Your task to perform on an android device: open app "Mercado Libre" (install if not already installed) Image 0: 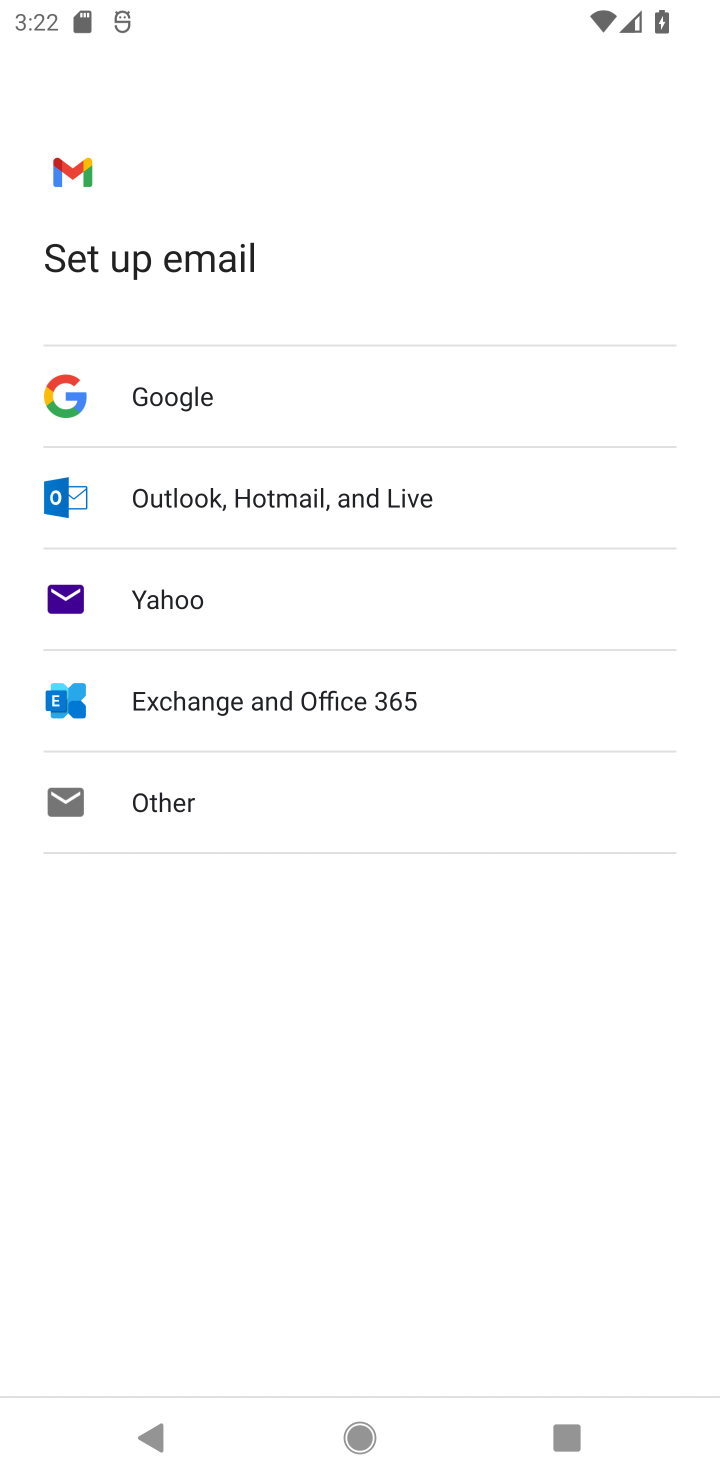
Step 0: press home button
Your task to perform on an android device: open app "Mercado Libre" (install if not already installed) Image 1: 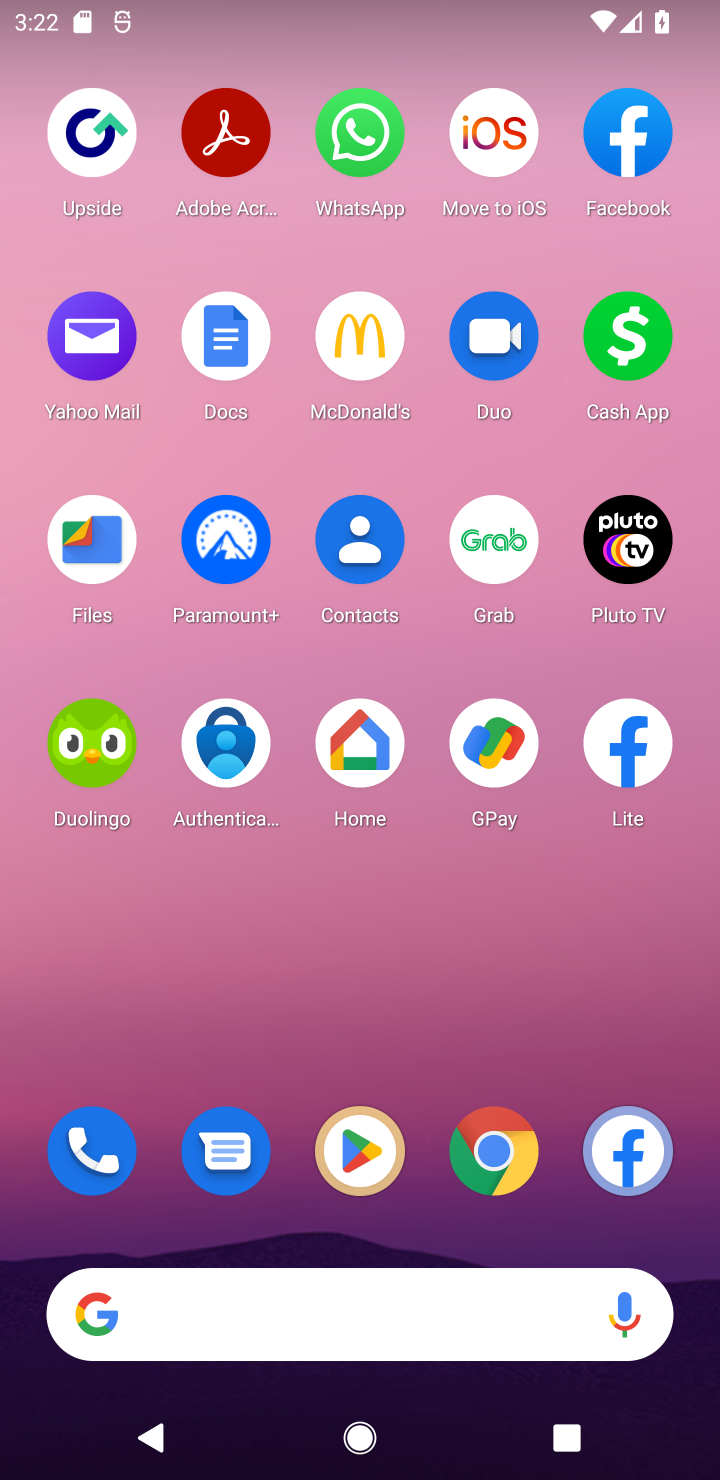
Step 1: click (370, 1199)
Your task to perform on an android device: open app "Mercado Libre" (install if not already installed) Image 2: 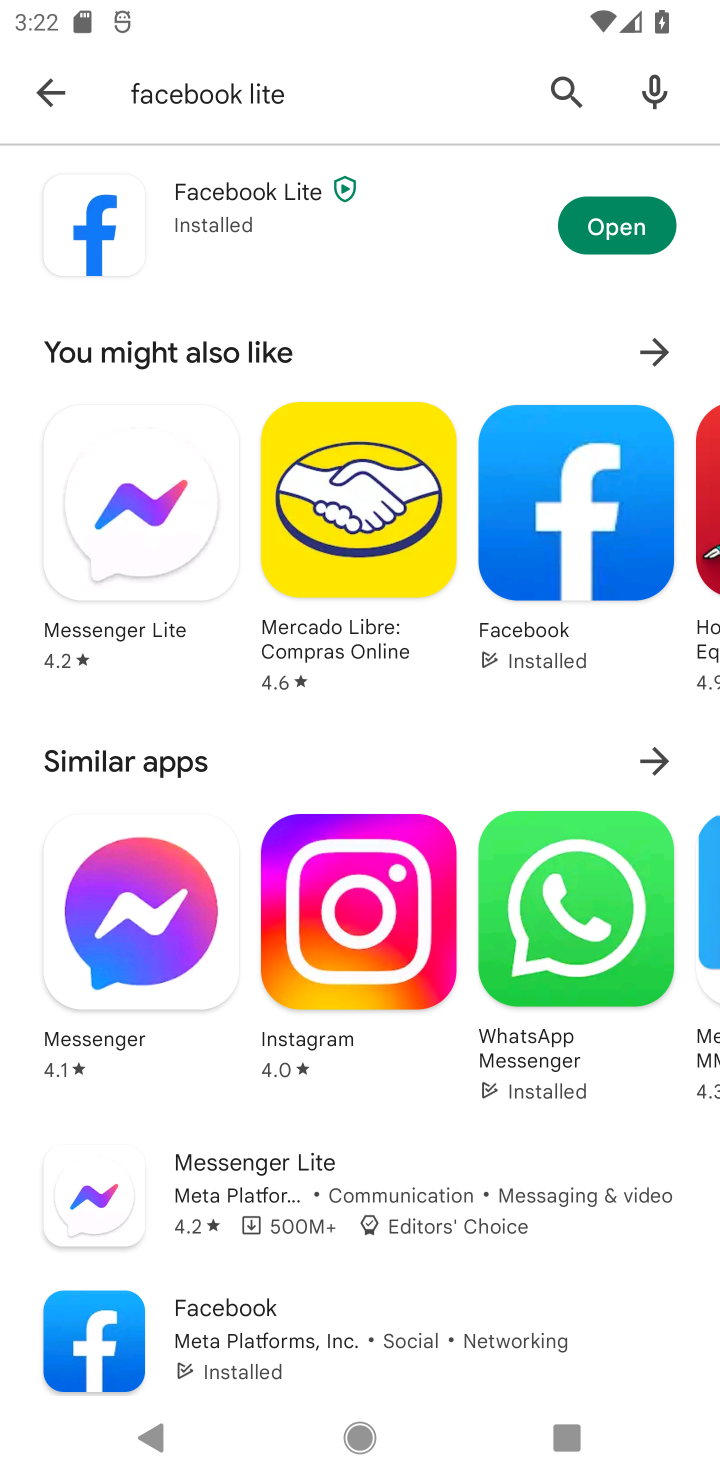
Step 2: click (543, 120)
Your task to perform on an android device: open app "Mercado Libre" (install if not already installed) Image 3: 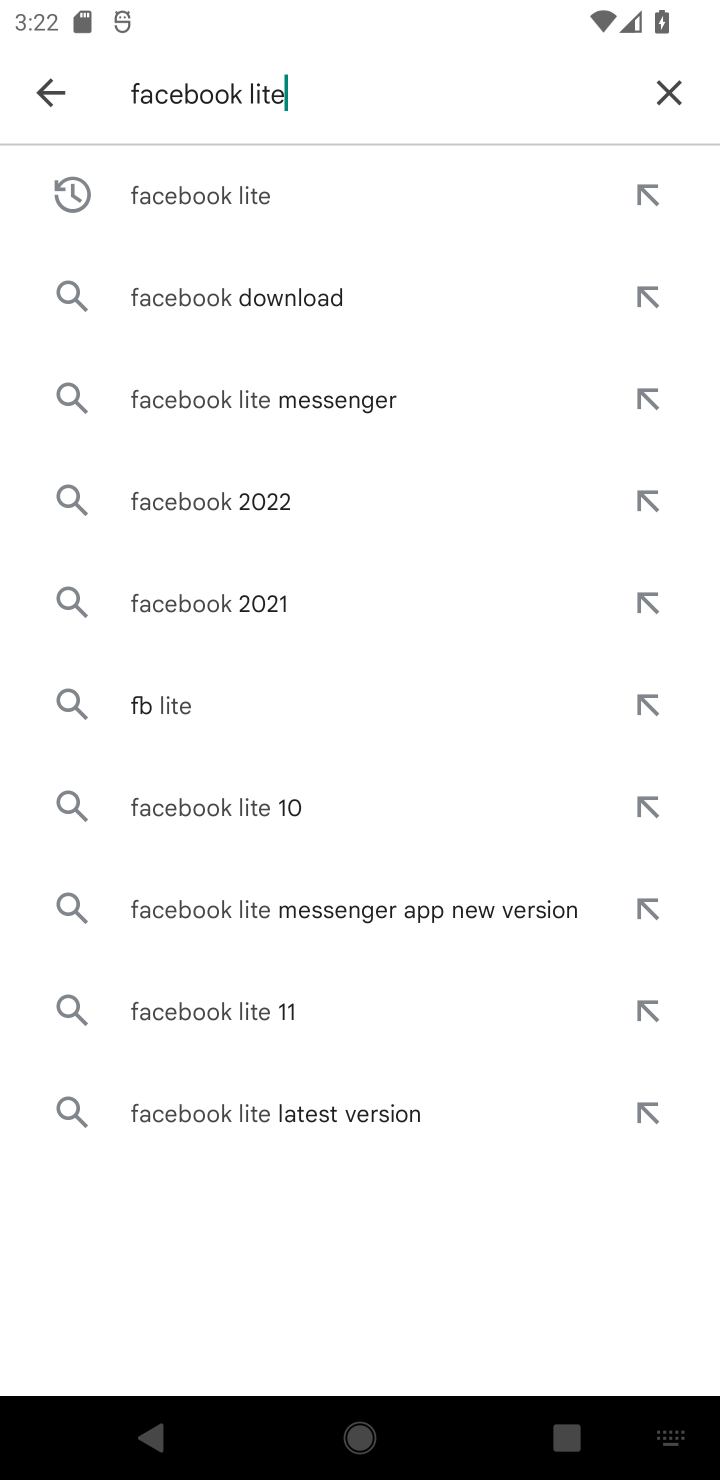
Step 3: click (647, 93)
Your task to perform on an android device: open app "Mercado Libre" (install if not already installed) Image 4: 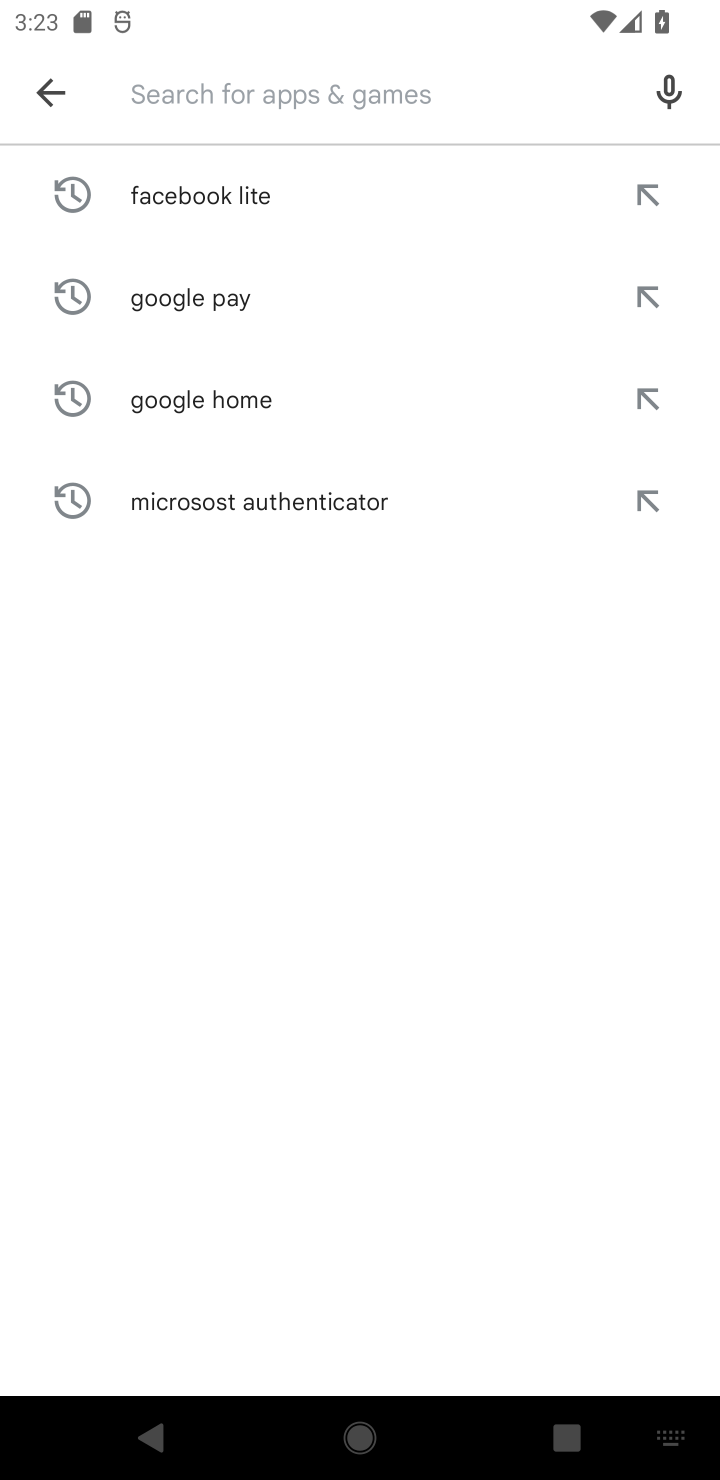
Step 4: type "mercado"
Your task to perform on an android device: open app "Mercado Libre" (install if not already installed) Image 5: 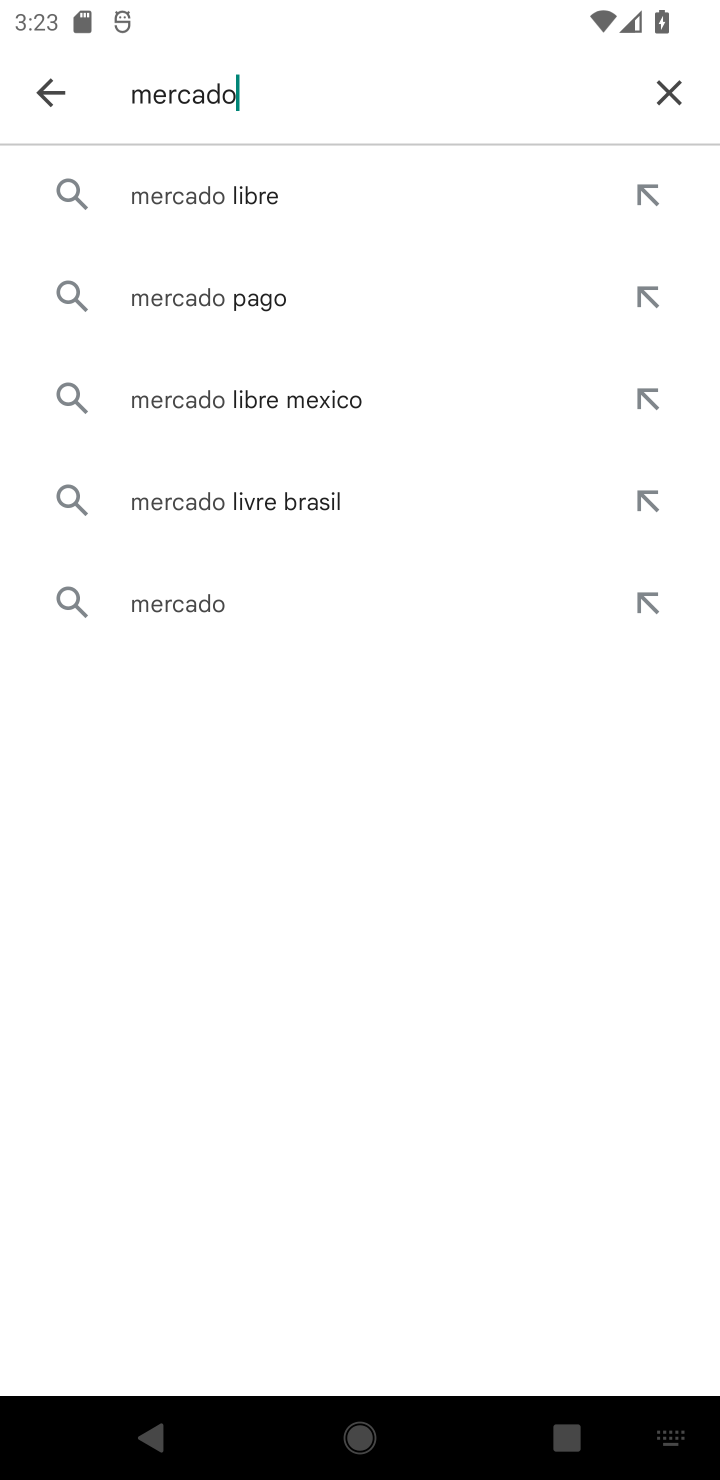
Step 5: click (317, 209)
Your task to perform on an android device: open app "Mercado Libre" (install if not already installed) Image 6: 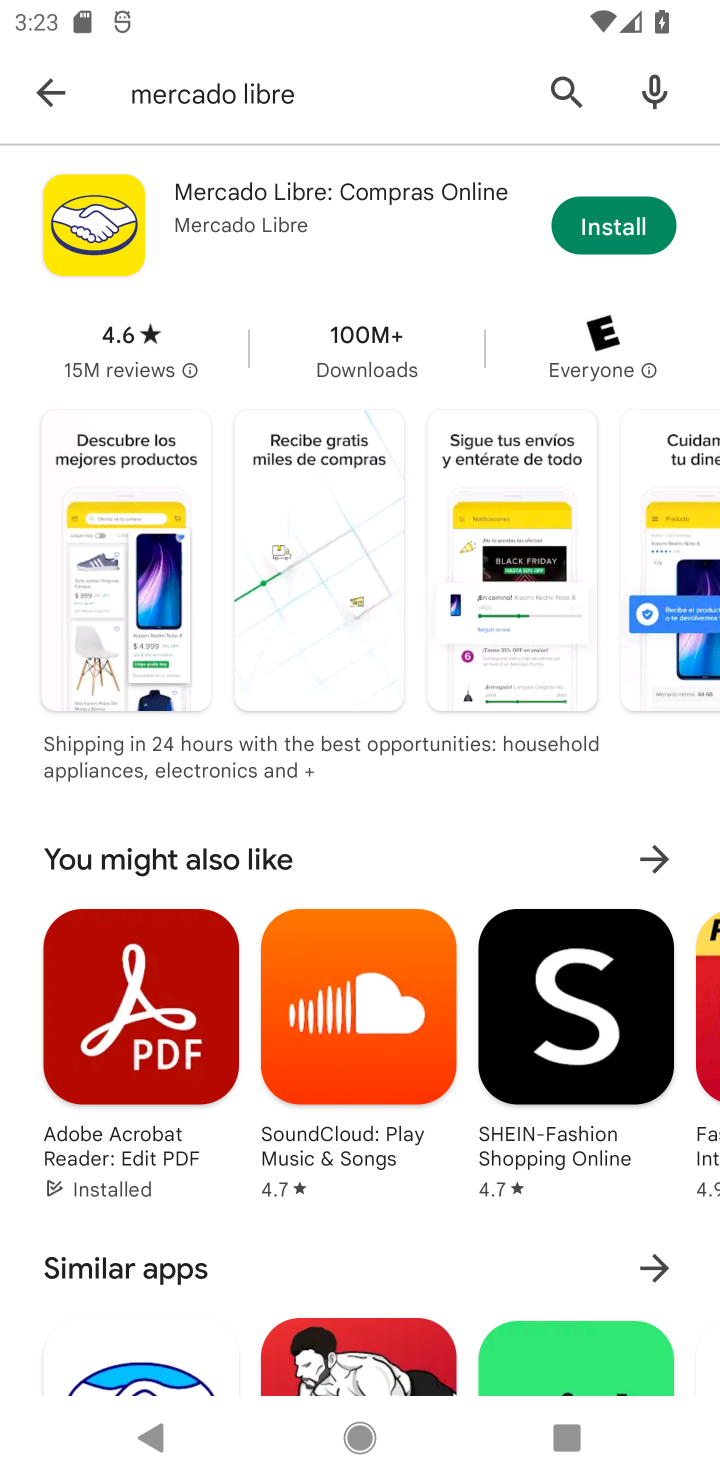
Step 6: click (601, 196)
Your task to perform on an android device: open app "Mercado Libre" (install if not already installed) Image 7: 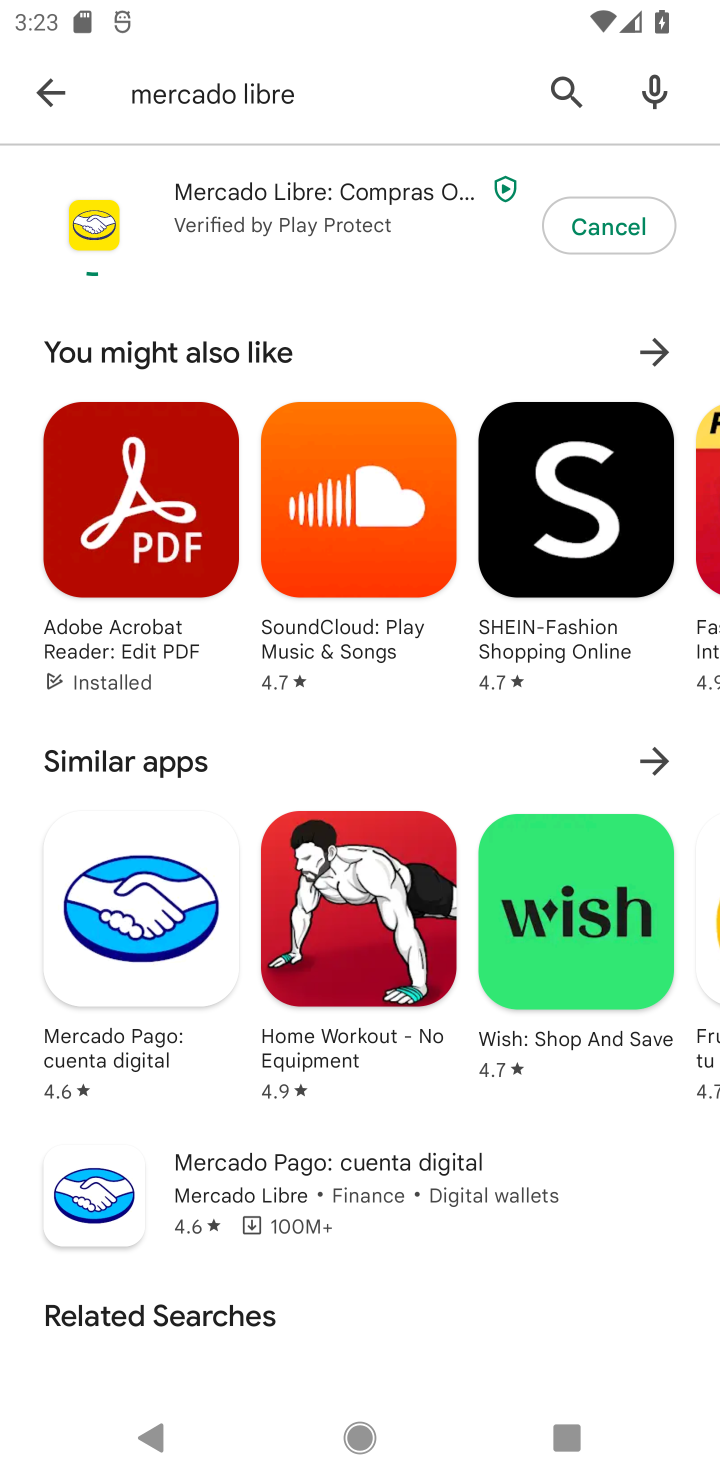
Step 7: task complete